Your task to perform on an android device: Go to display settings Image 0: 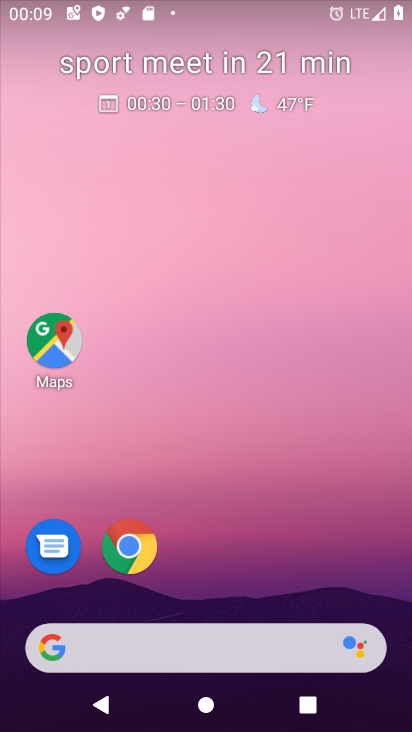
Step 0: drag from (317, 604) to (304, 34)
Your task to perform on an android device: Go to display settings Image 1: 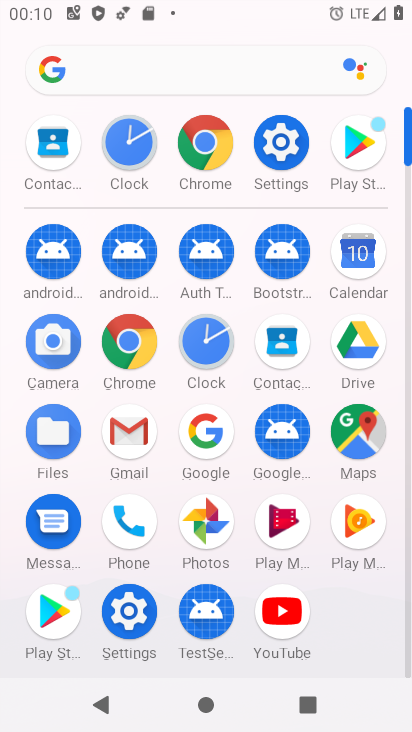
Step 1: click (276, 151)
Your task to perform on an android device: Go to display settings Image 2: 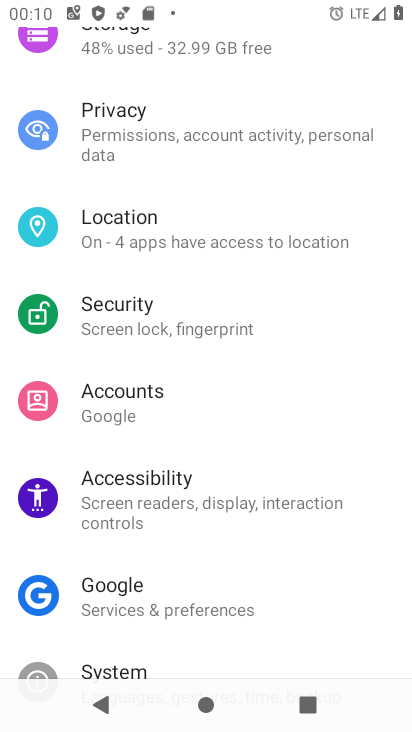
Step 2: drag from (364, 289) to (350, 538)
Your task to perform on an android device: Go to display settings Image 3: 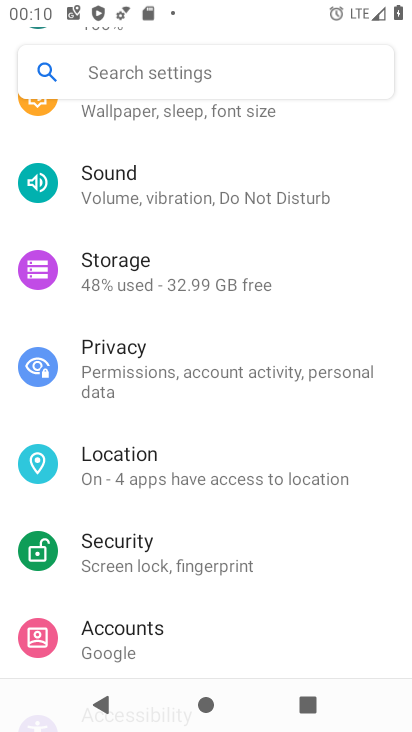
Step 3: drag from (347, 261) to (347, 504)
Your task to perform on an android device: Go to display settings Image 4: 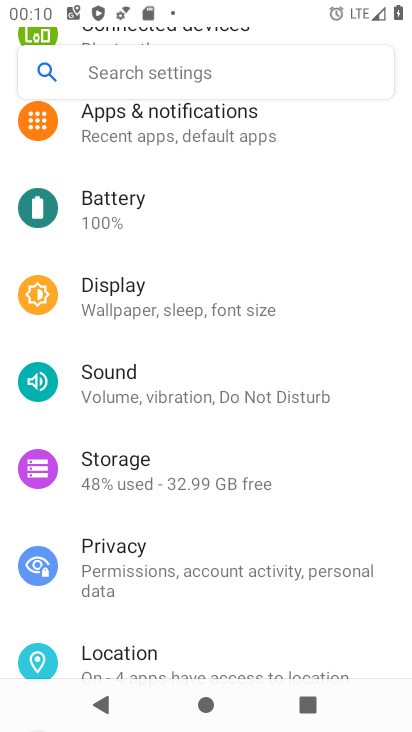
Step 4: click (111, 302)
Your task to perform on an android device: Go to display settings Image 5: 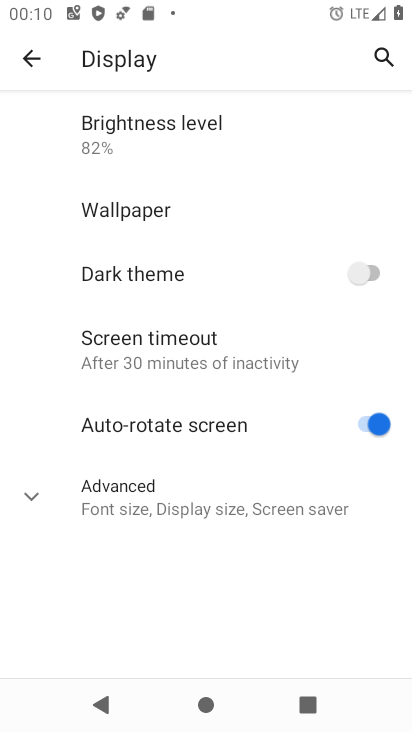
Step 5: task complete